Your task to perform on an android device: make emails show in primary in the gmail app Image 0: 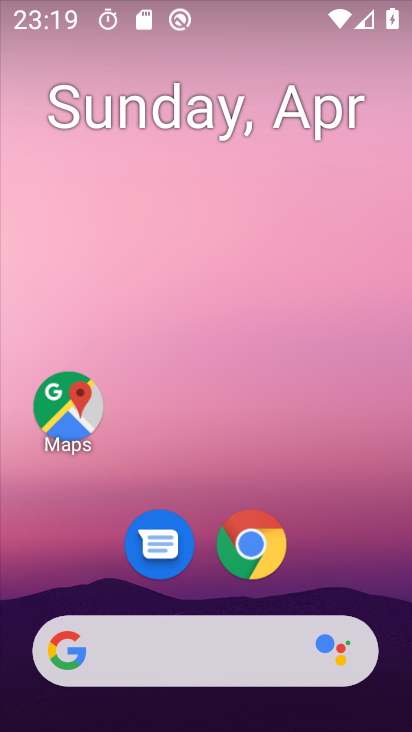
Step 0: drag from (337, 502) to (295, 223)
Your task to perform on an android device: make emails show in primary in the gmail app Image 1: 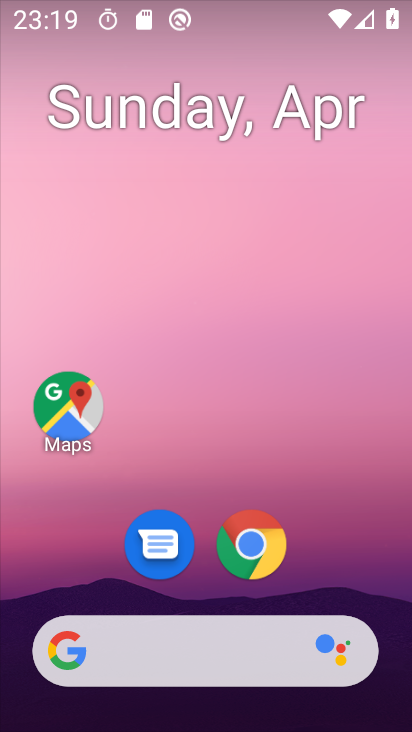
Step 1: drag from (339, 496) to (317, 281)
Your task to perform on an android device: make emails show in primary in the gmail app Image 2: 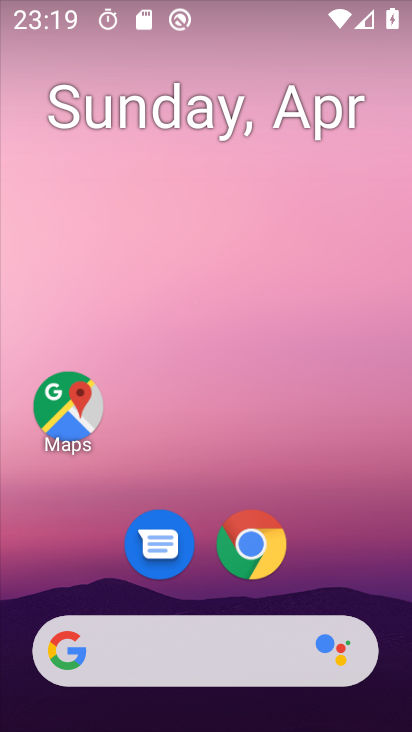
Step 2: drag from (329, 576) to (294, 105)
Your task to perform on an android device: make emails show in primary in the gmail app Image 3: 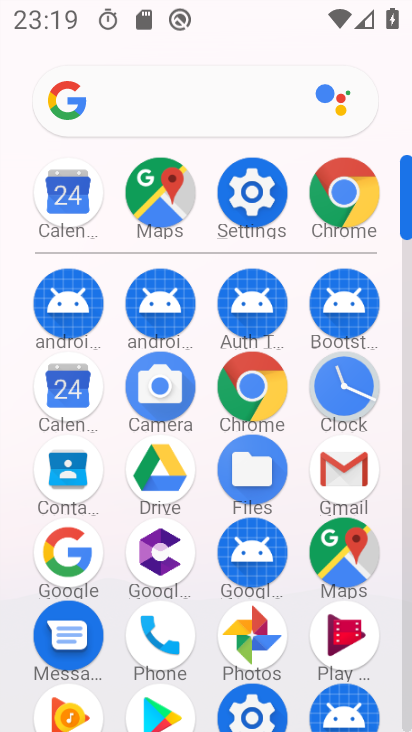
Step 3: click (341, 465)
Your task to perform on an android device: make emails show in primary in the gmail app Image 4: 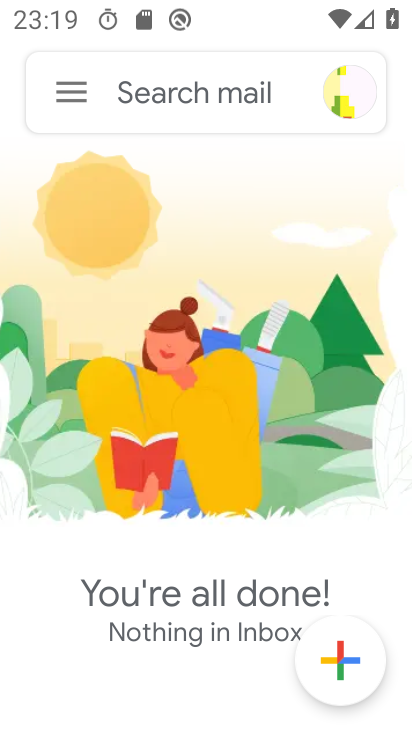
Step 4: click (58, 79)
Your task to perform on an android device: make emails show in primary in the gmail app Image 5: 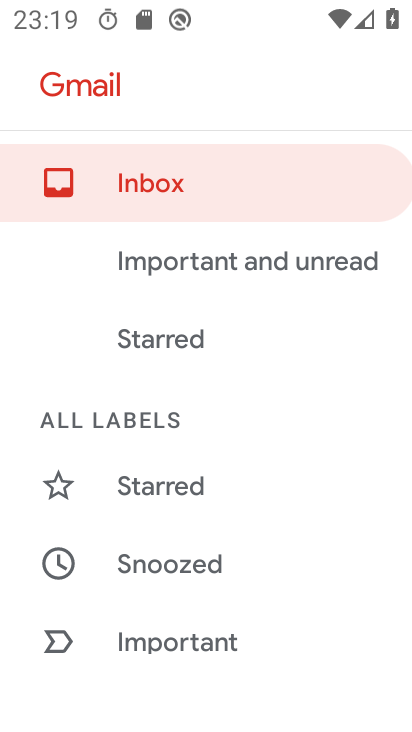
Step 5: drag from (259, 621) to (316, 97)
Your task to perform on an android device: make emails show in primary in the gmail app Image 6: 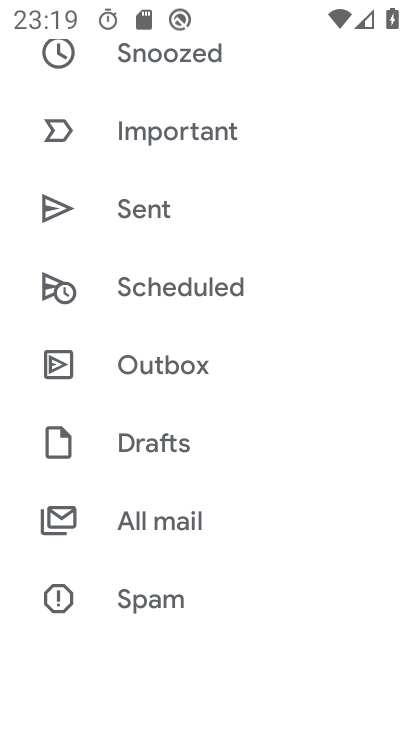
Step 6: click (157, 513)
Your task to perform on an android device: make emails show in primary in the gmail app Image 7: 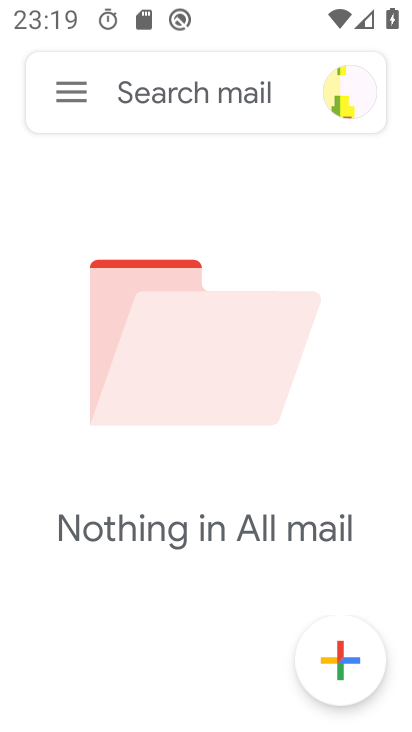
Step 7: task complete